Your task to perform on an android device: Open Google Maps Image 0: 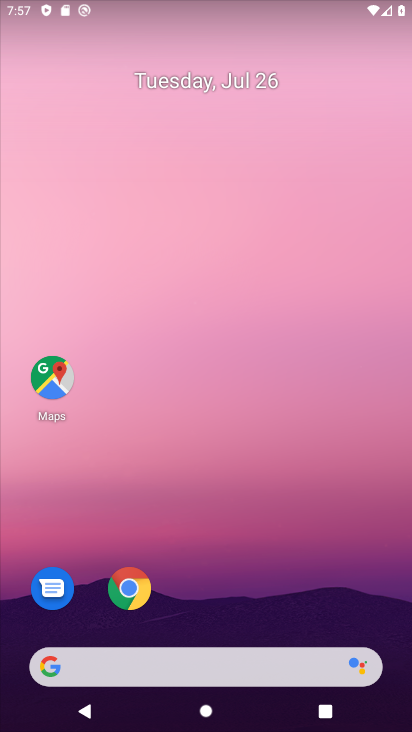
Step 0: drag from (298, 534) to (173, 48)
Your task to perform on an android device: Open Google Maps Image 1: 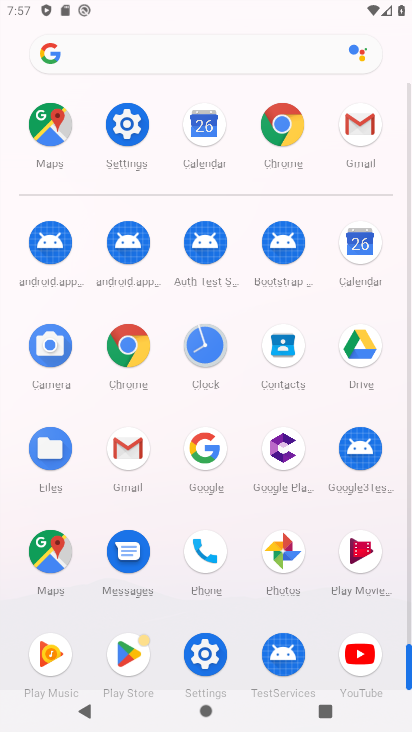
Step 1: click (41, 555)
Your task to perform on an android device: Open Google Maps Image 2: 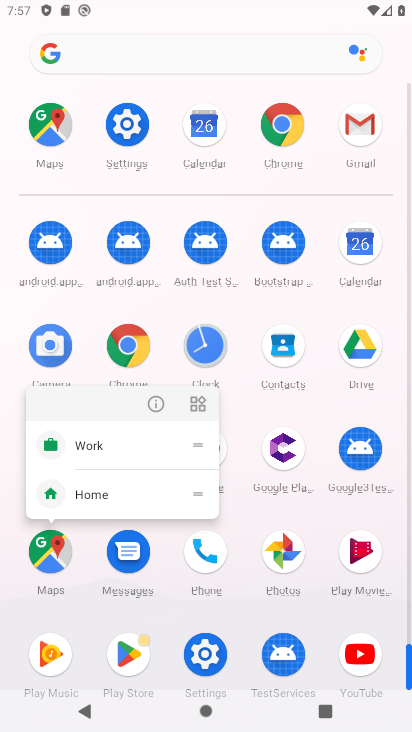
Step 2: click (46, 555)
Your task to perform on an android device: Open Google Maps Image 3: 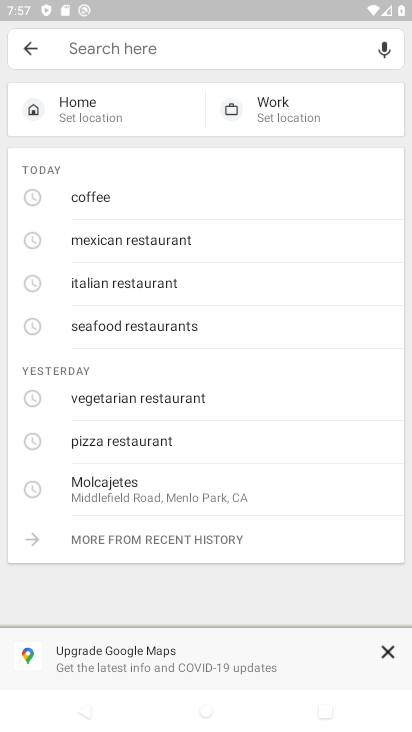
Step 3: click (40, 46)
Your task to perform on an android device: Open Google Maps Image 4: 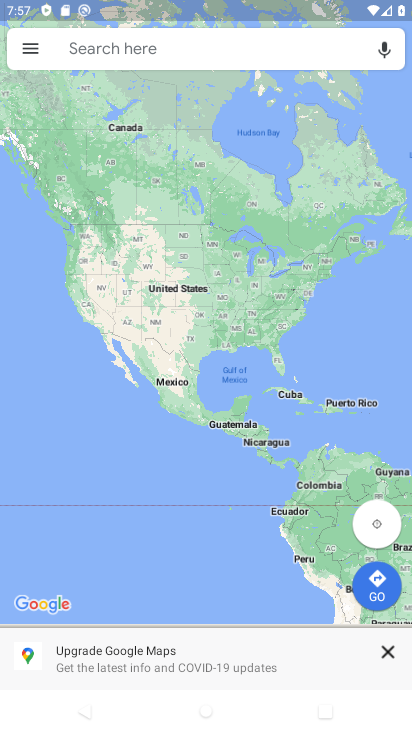
Step 4: task complete